Your task to perform on an android device: Open wifi settings Image 0: 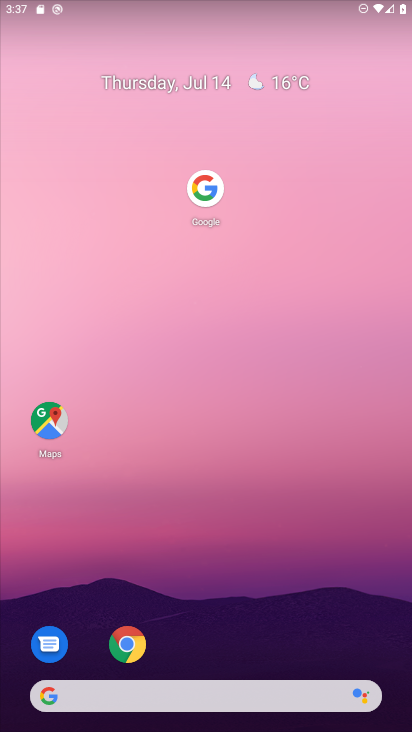
Step 0: drag from (247, 629) to (215, 274)
Your task to perform on an android device: Open wifi settings Image 1: 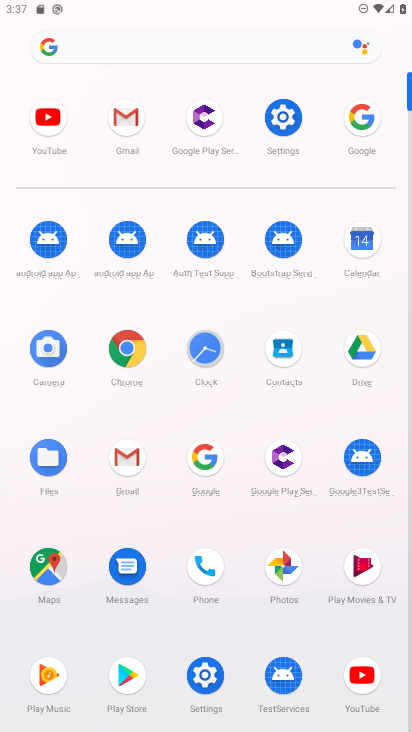
Step 1: click (268, 130)
Your task to perform on an android device: Open wifi settings Image 2: 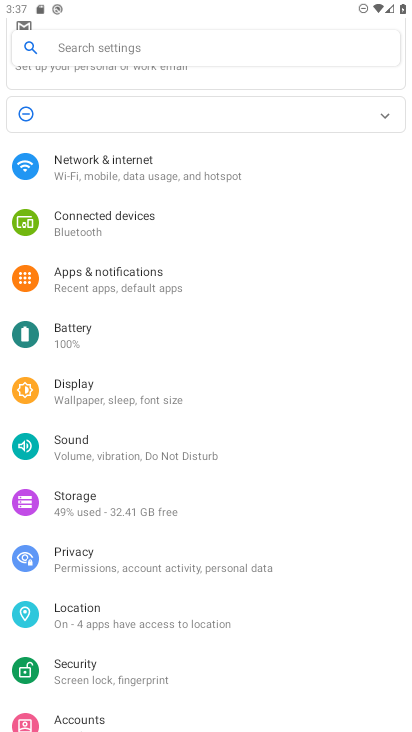
Step 2: click (119, 192)
Your task to perform on an android device: Open wifi settings Image 3: 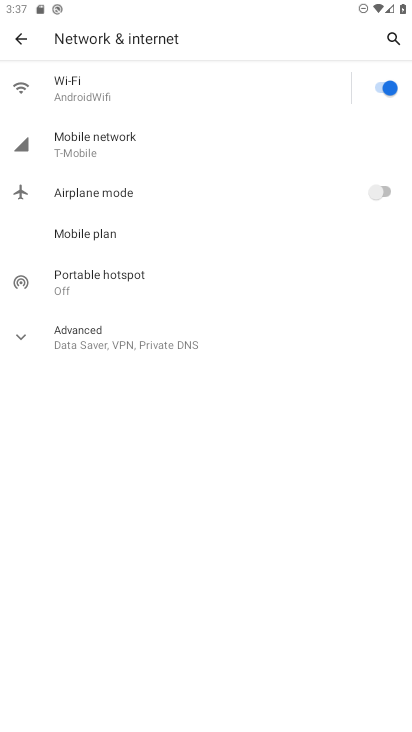
Step 3: click (111, 102)
Your task to perform on an android device: Open wifi settings Image 4: 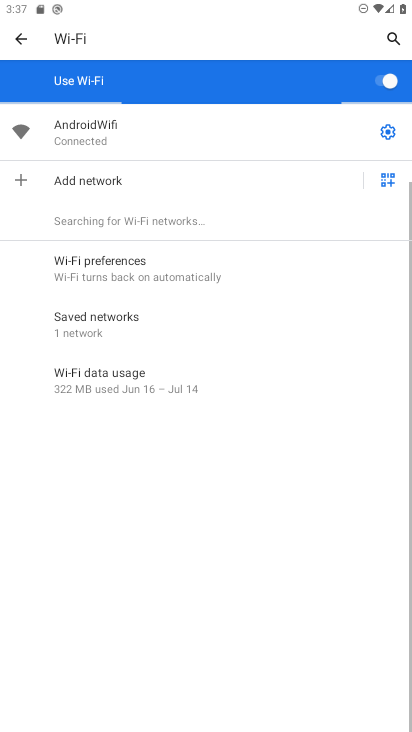
Step 4: click (193, 132)
Your task to perform on an android device: Open wifi settings Image 5: 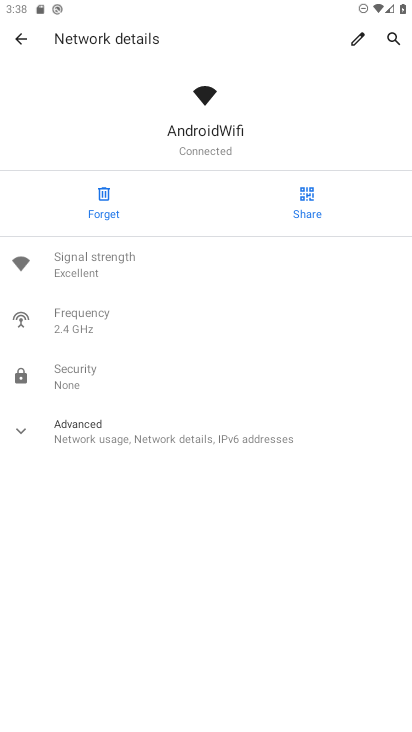
Step 5: task complete